Your task to perform on an android device: toggle priority inbox in the gmail app Image 0: 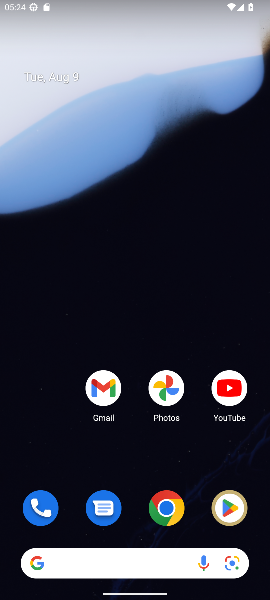
Step 0: press home button
Your task to perform on an android device: toggle priority inbox in the gmail app Image 1: 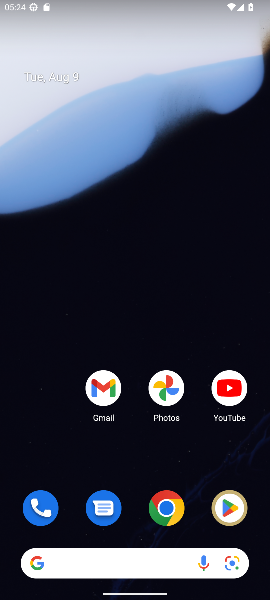
Step 1: click (103, 380)
Your task to perform on an android device: toggle priority inbox in the gmail app Image 2: 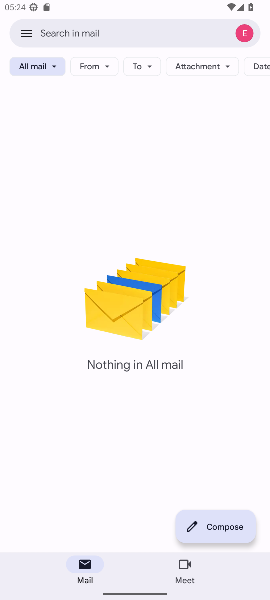
Step 2: click (27, 32)
Your task to perform on an android device: toggle priority inbox in the gmail app Image 3: 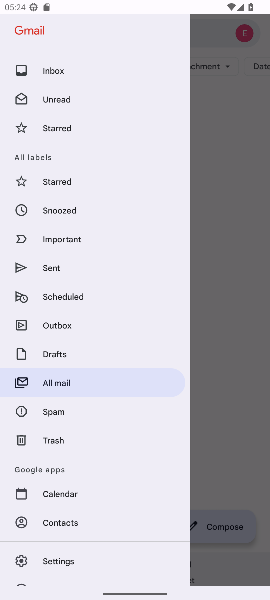
Step 3: click (56, 564)
Your task to perform on an android device: toggle priority inbox in the gmail app Image 4: 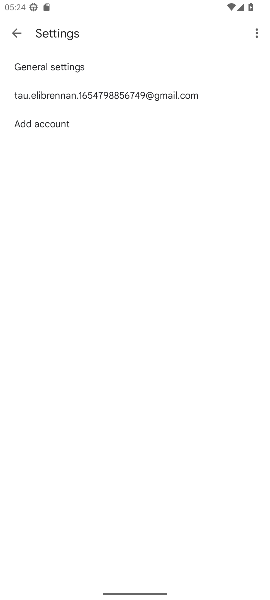
Step 4: click (134, 100)
Your task to perform on an android device: toggle priority inbox in the gmail app Image 5: 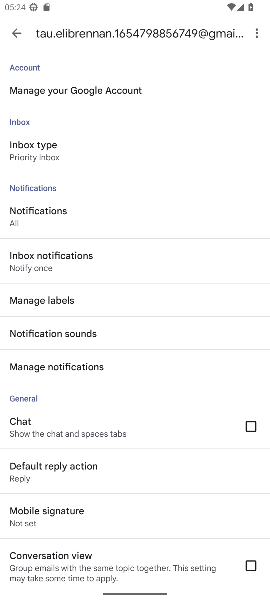
Step 5: click (40, 164)
Your task to perform on an android device: toggle priority inbox in the gmail app Image 6: 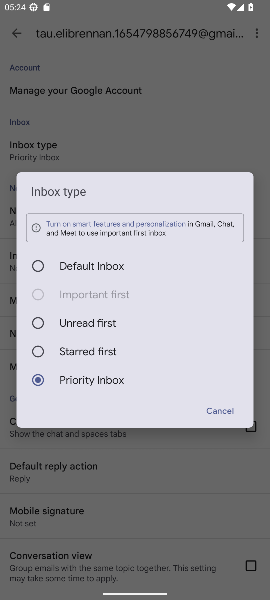
Step 6: click (82, 259)
Your task to perform on an android device: toggle priority inbox in the gmail app Image 7: 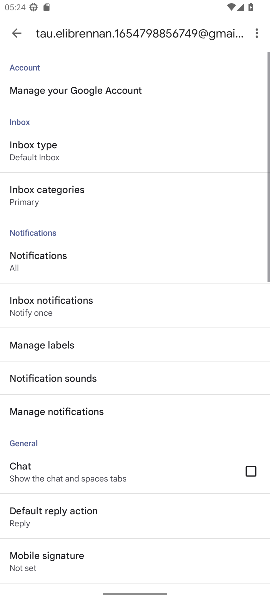
Step 7: task complete